Your task to perform on an android device: turn off wifi Image 0: 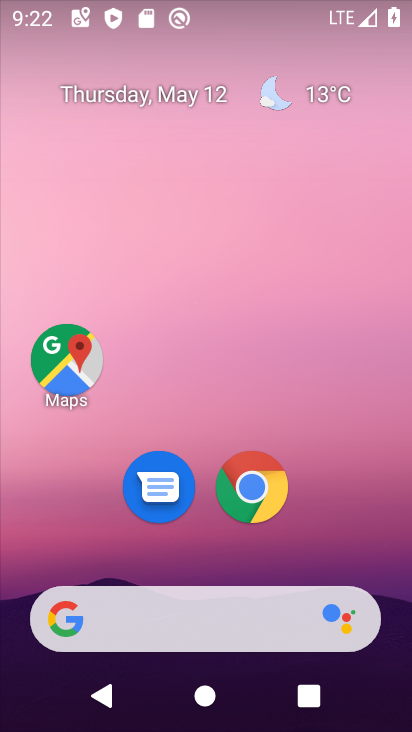
Step 0: drag from (360, 479) to (299, 33)
Your task to perform on an android device: turn off wifi Image 1: 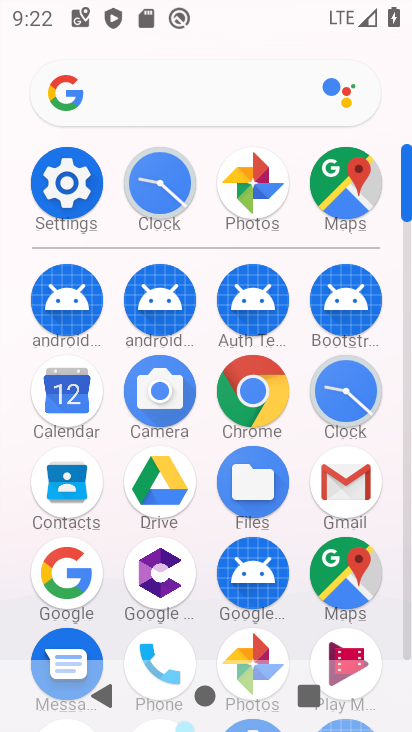
Step 1: click (58, 196)
Your task to perform on an android device: turn off wifi Image 2: 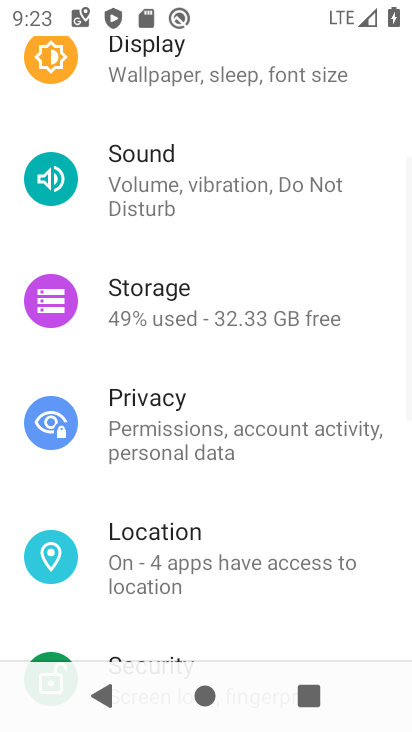
Step 2: drag from (289, 154) to (295, 517)
Your task to perform on an android device: turn off wifi Image 3: 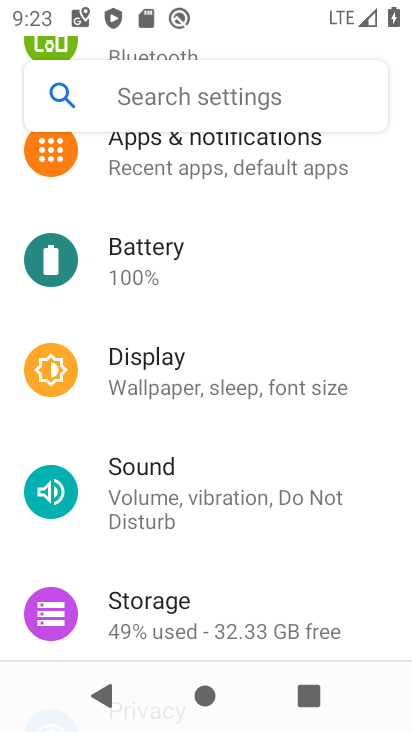
Step 3: drag from (254, 262) to (278, 548)
Your task to perform on an android device: turn off wifi Image 4: 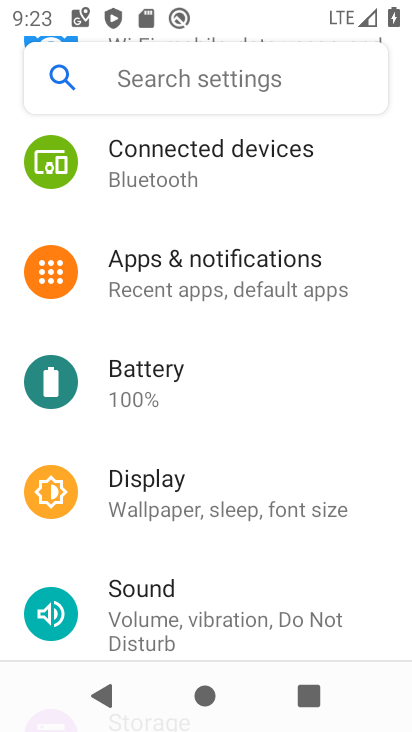
Step 4: drag from (260, 182) to (290, 521)
Your task to perform on an android device: turn off wifi Image 5: 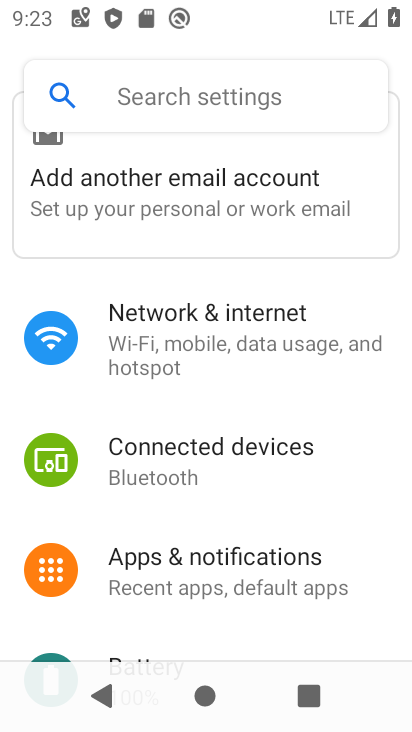
Step 5: click (243, 317)
Your task to perform on an android device: turn off wifi Image 6: 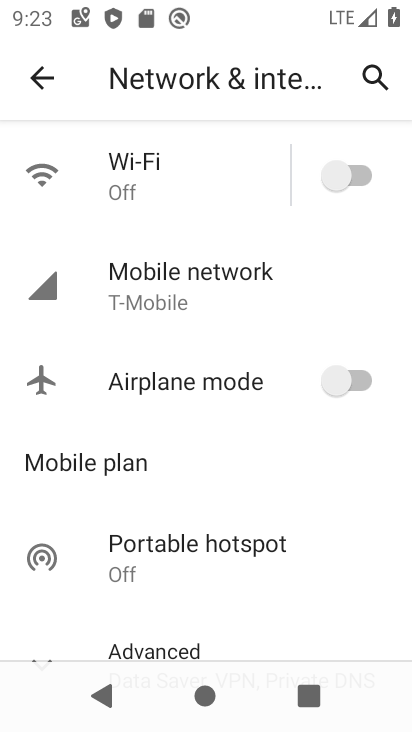
Step 6: task complete